Your task to perform on an android device: open app "Pluto TV - Live TV and Movies" Image 0: 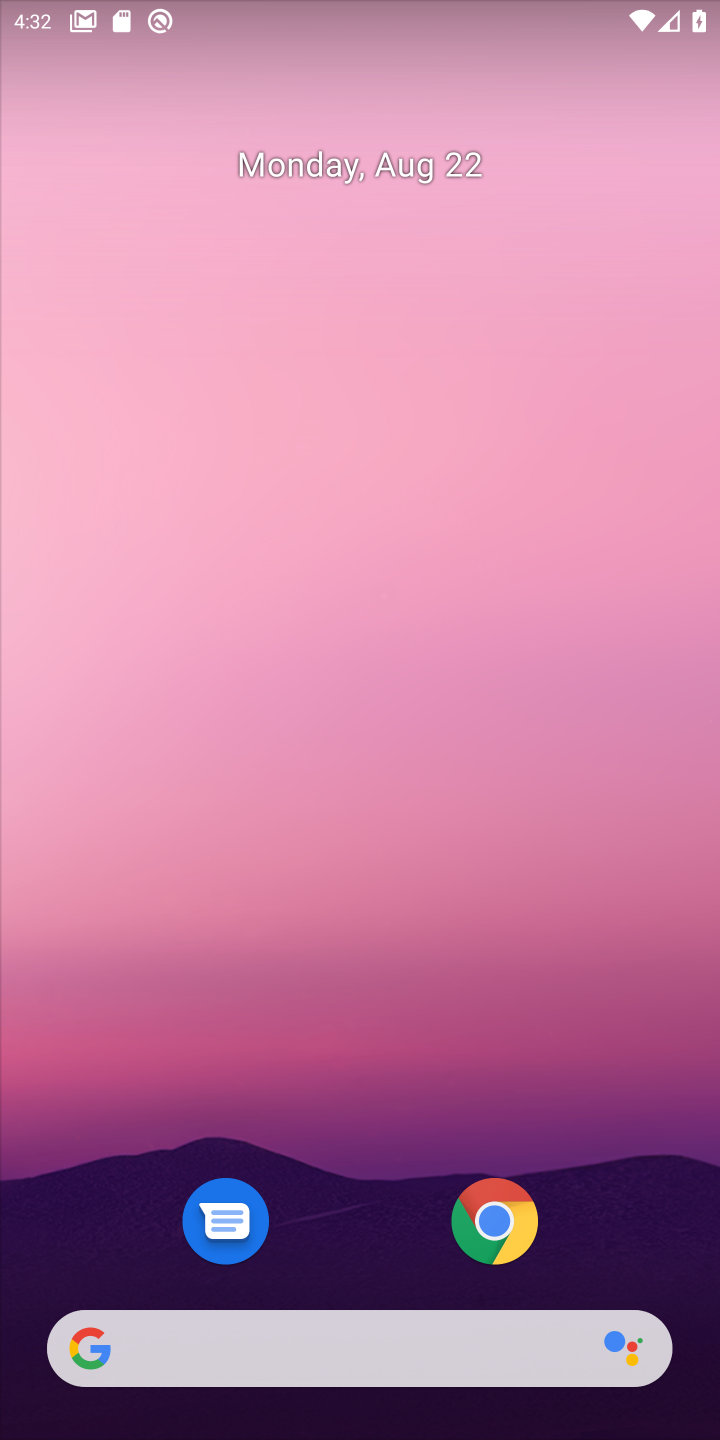
Step 0: drag from (705, 443) to (718, 48)
Your task to perform on an android device: open app "Pluto TV - Live TV and Movies" Image 1: 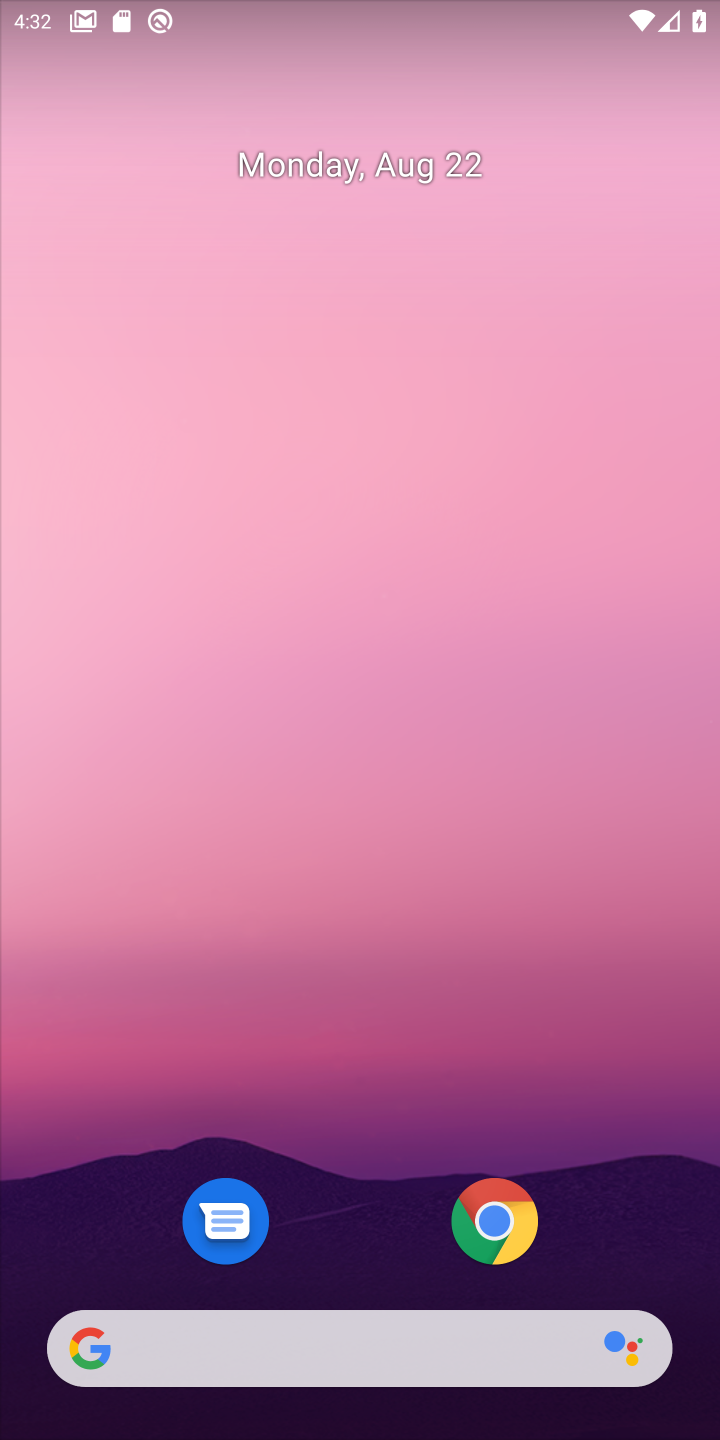
Step 1: drag from (280, 1333) to (96, 71)
Your task to perform on an android device: open app "Pluto TV - Live TV and Movies" Image 2: 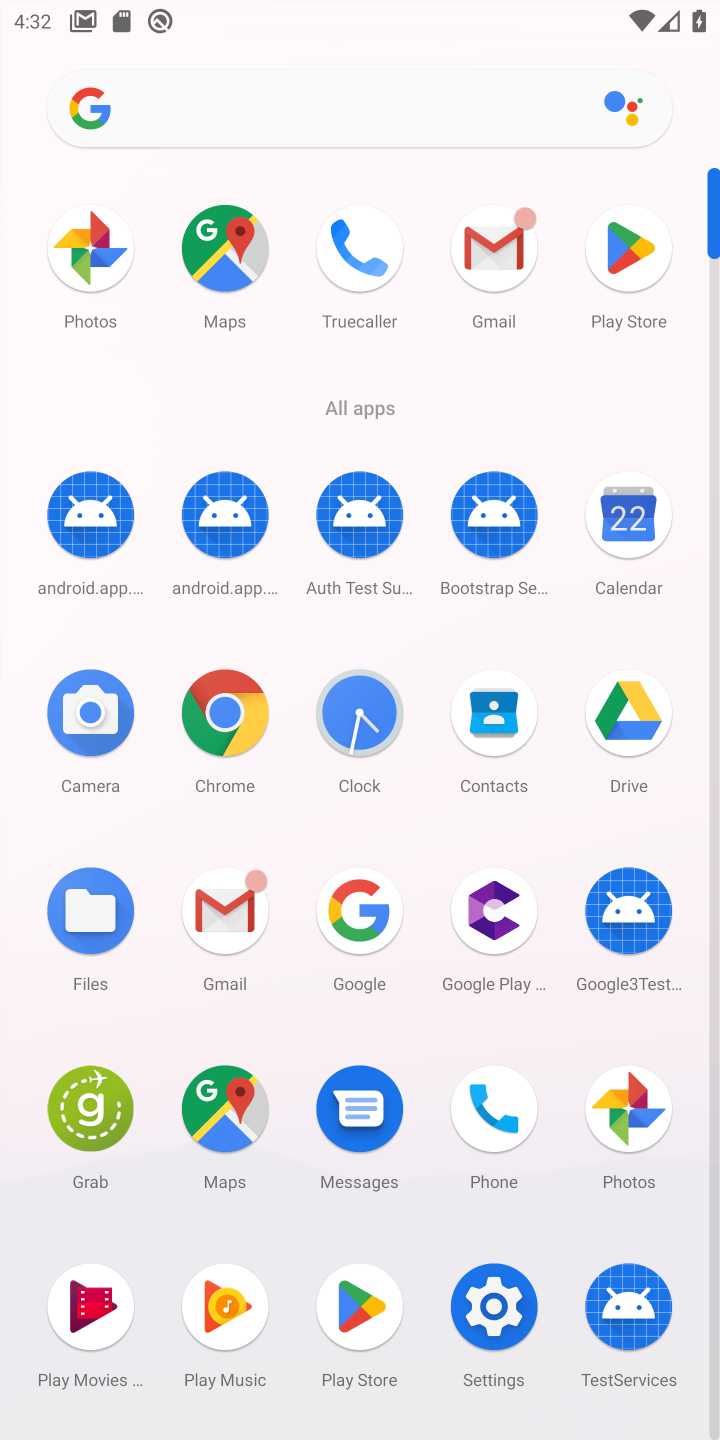
Step 2: click (606, 241)
Your task to perform on an android device: open app "Pluto TV - Live TV and Movies" Image 3: 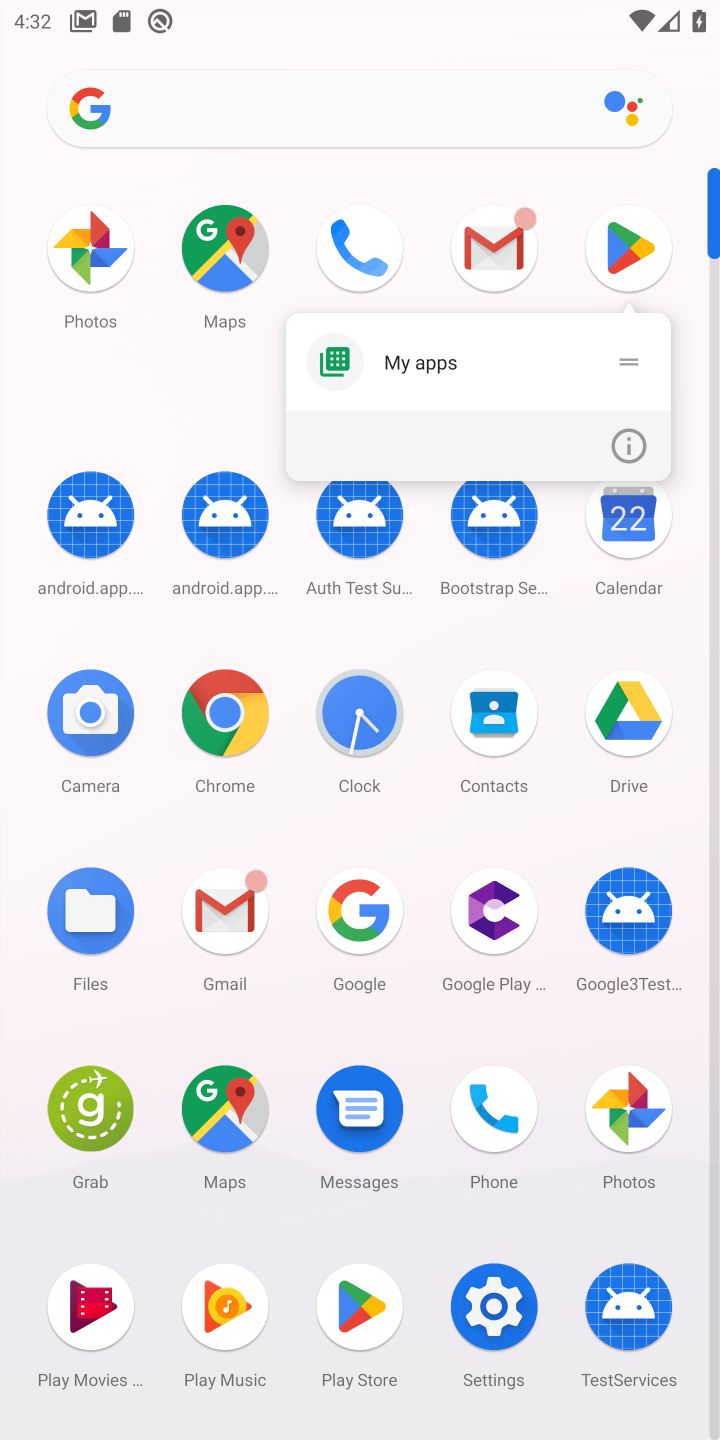
Step 3: click (624, 253)
Your task to perform on an android device: open app "Pluto TV - Live TV and Movies" Image 4: 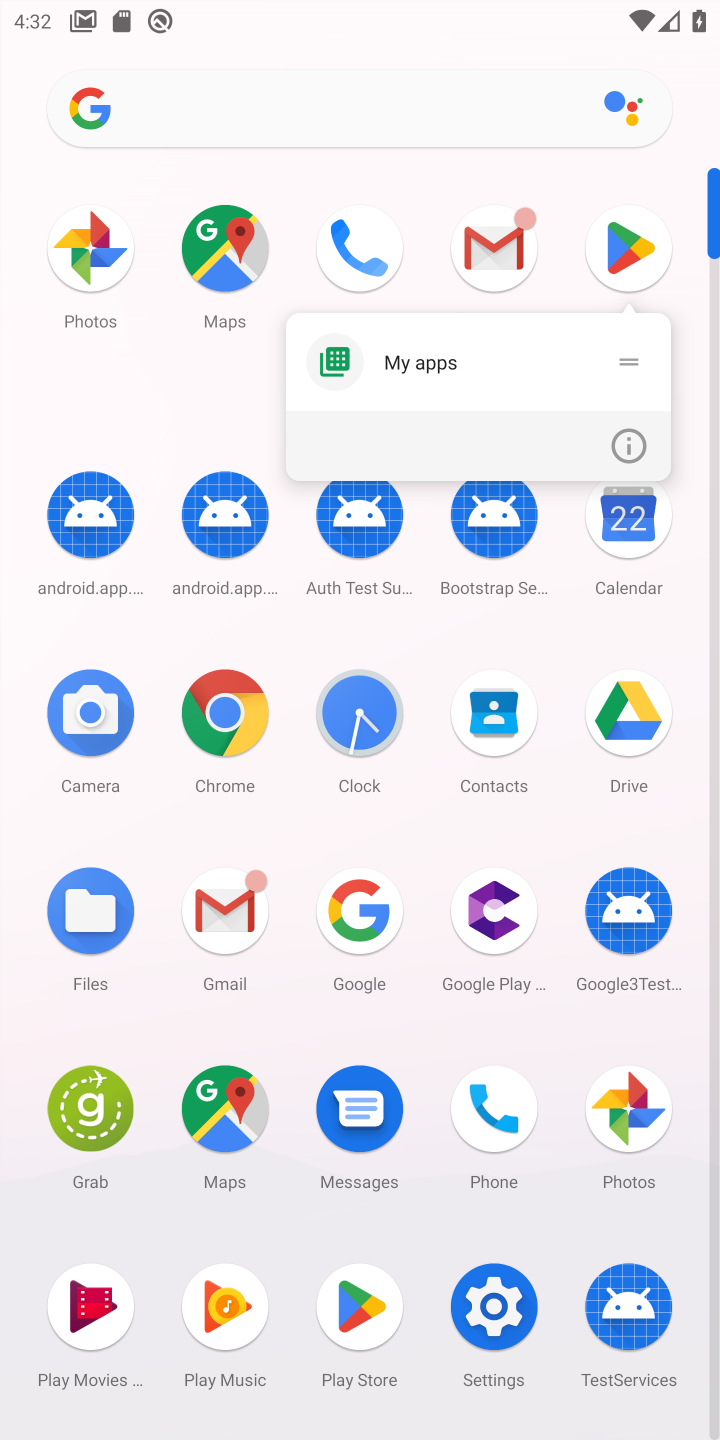
Step 4: click (624, 253)
Your task to perform on an android device: open app "Pluto TV - Live TV and Movies" Image 5: 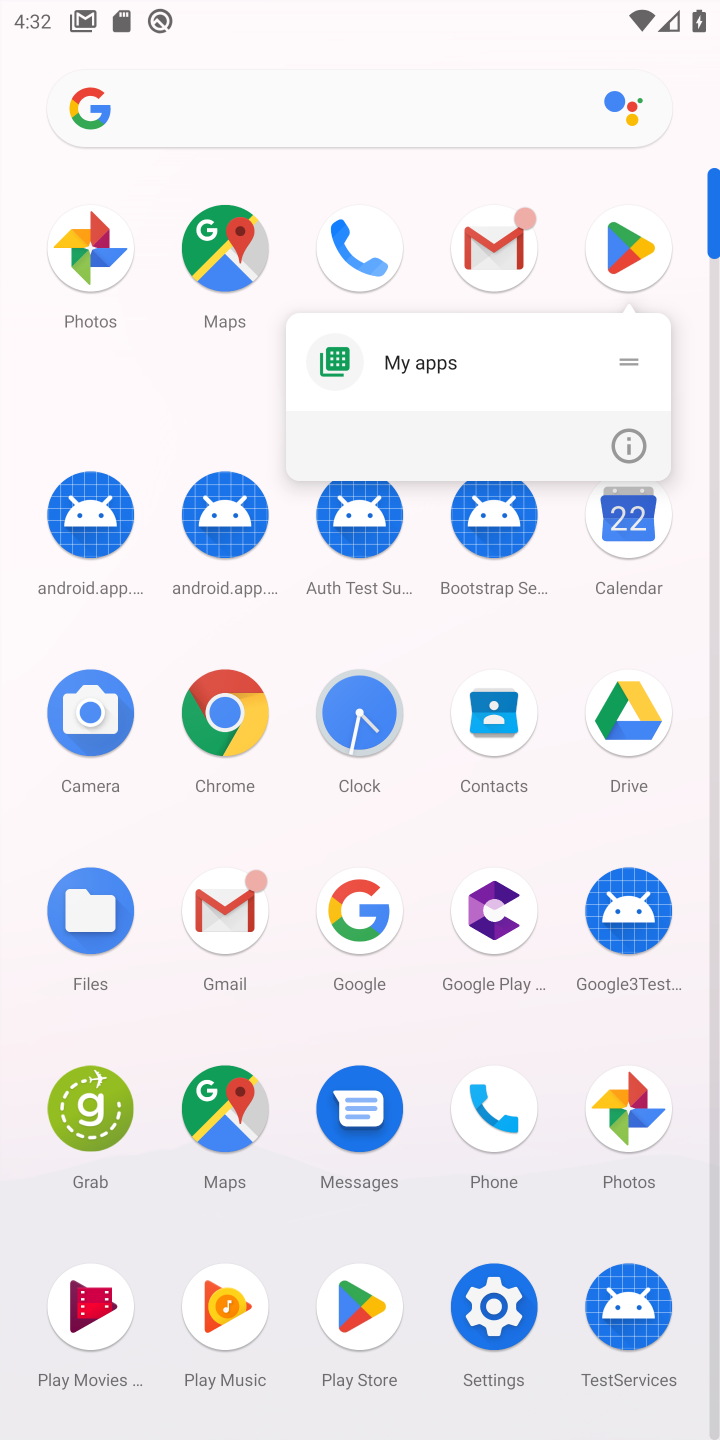
Step 5: click (622, 271)
Your task to perform on an android device: open app "Pluto TV - Live TV and Movies" Image 6: 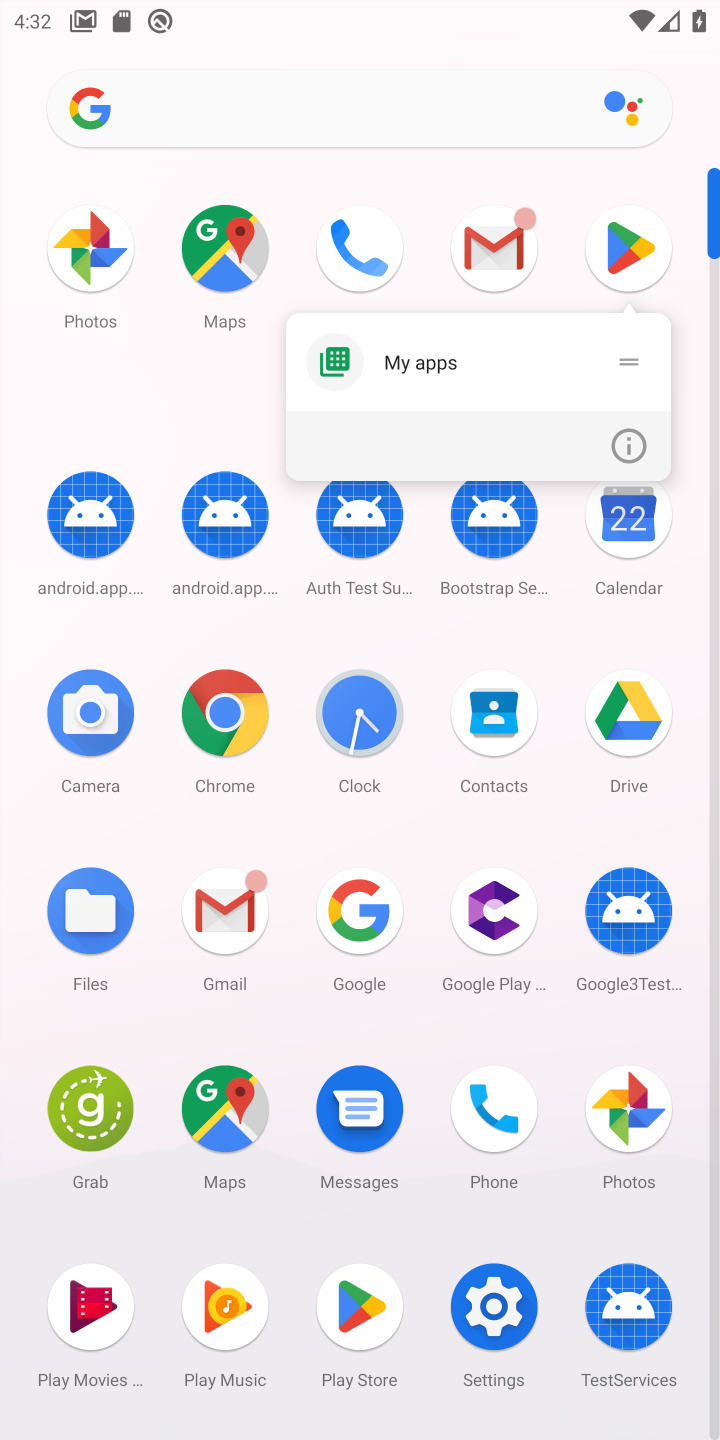
Step 6: click (622, 271)
Your task to perform on an android device: open app "Pluto TV - Live TV and Movies" Image 7: 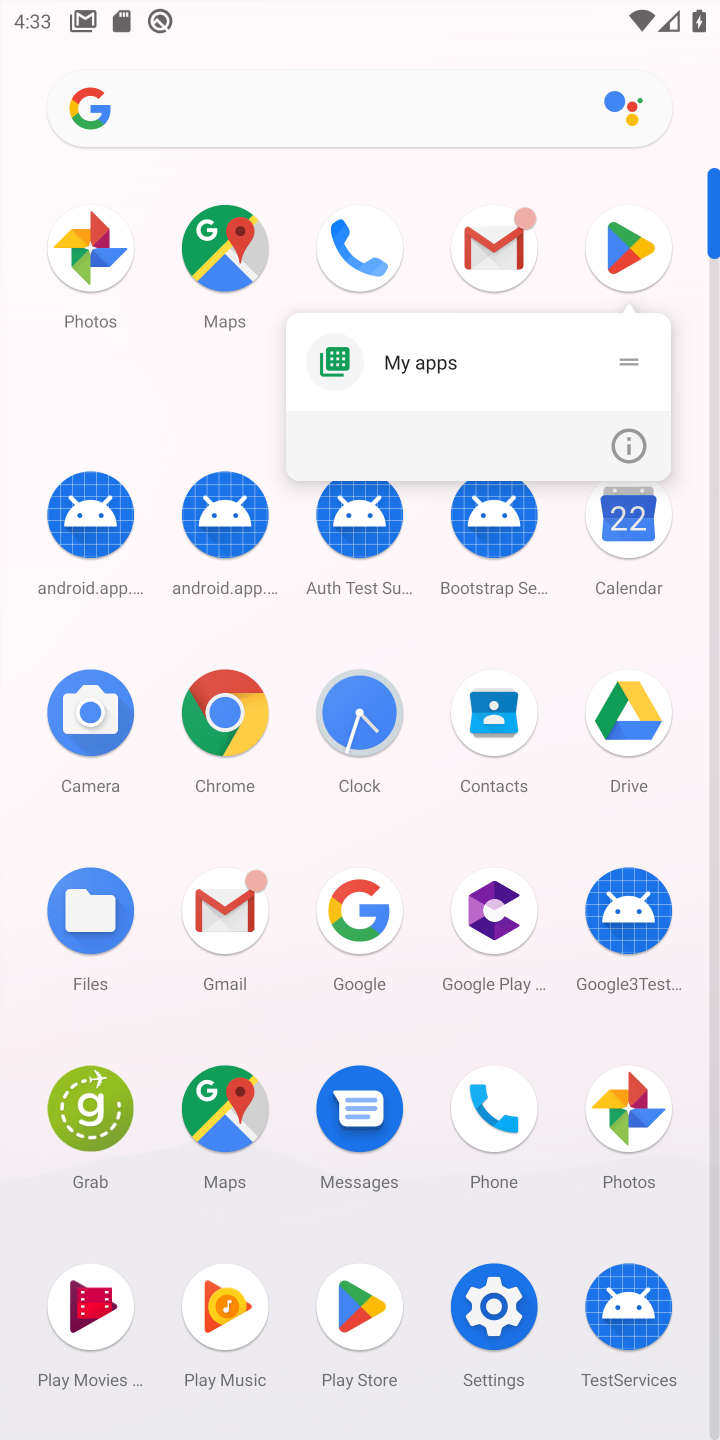
Step 7: click (620, 271)
Your task to perform on an android device: open app "Pluto TV - Live TV and Movies" Image 8: 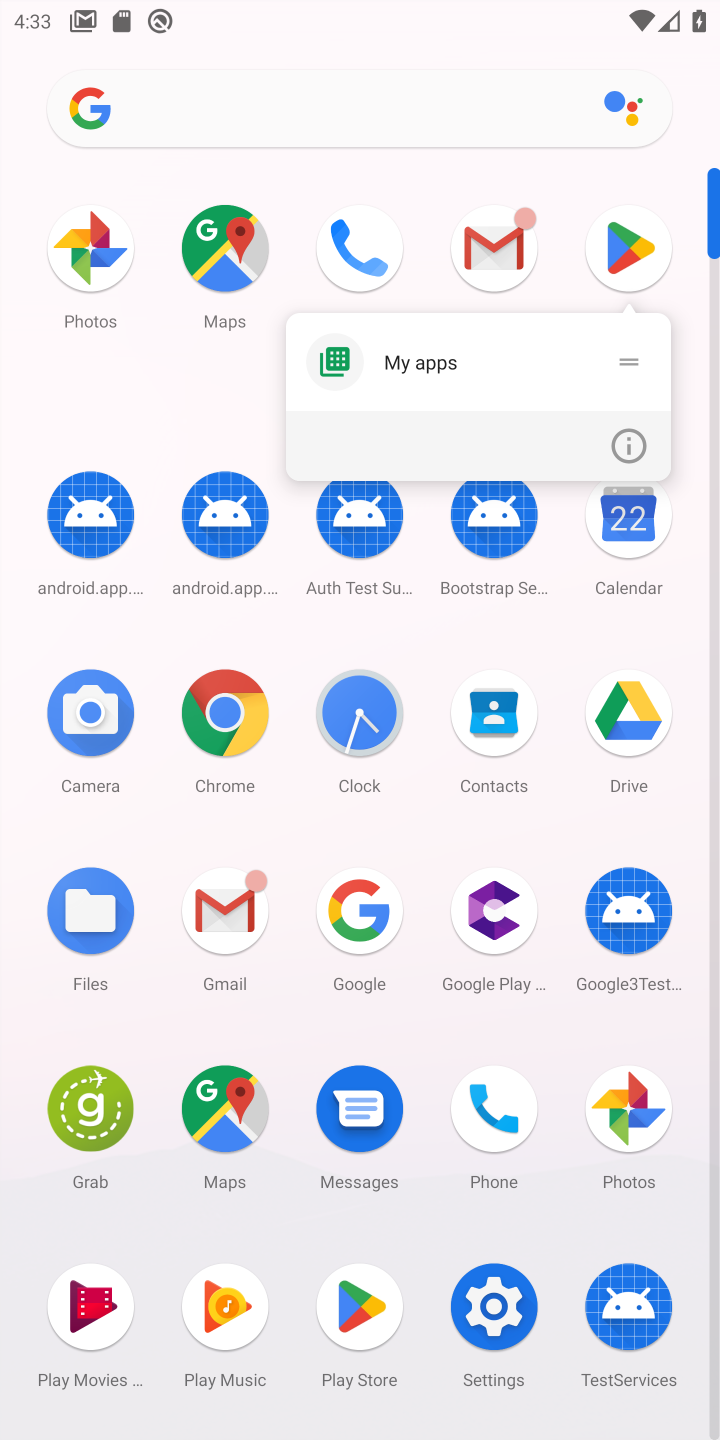
Step 8: click (616, 254)
Your task to perform on an android device: open app "Pluto TV - Live TV and Movies" Image 9: 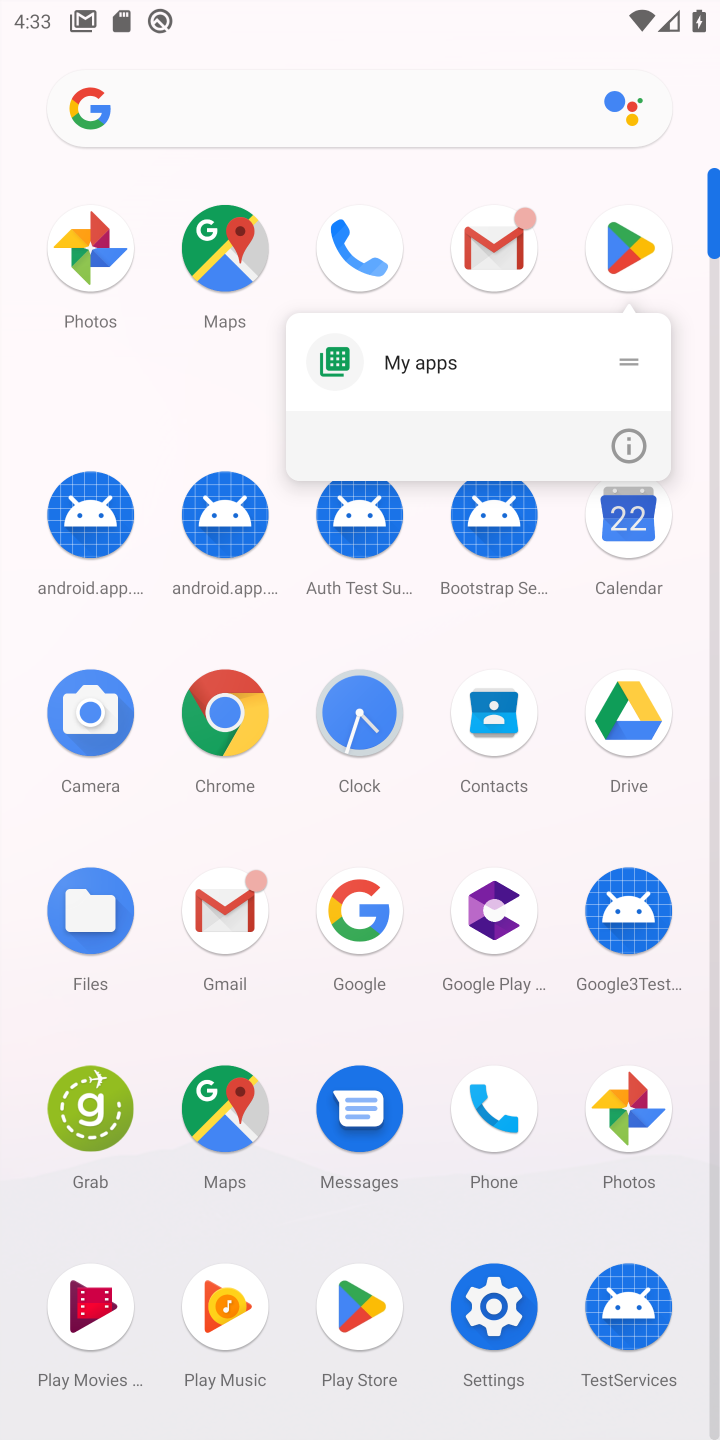
Step 9: click (616, 252)
Your task to perform on an android device: open app "Pluto TV - Live TV and Movies" Image 10: 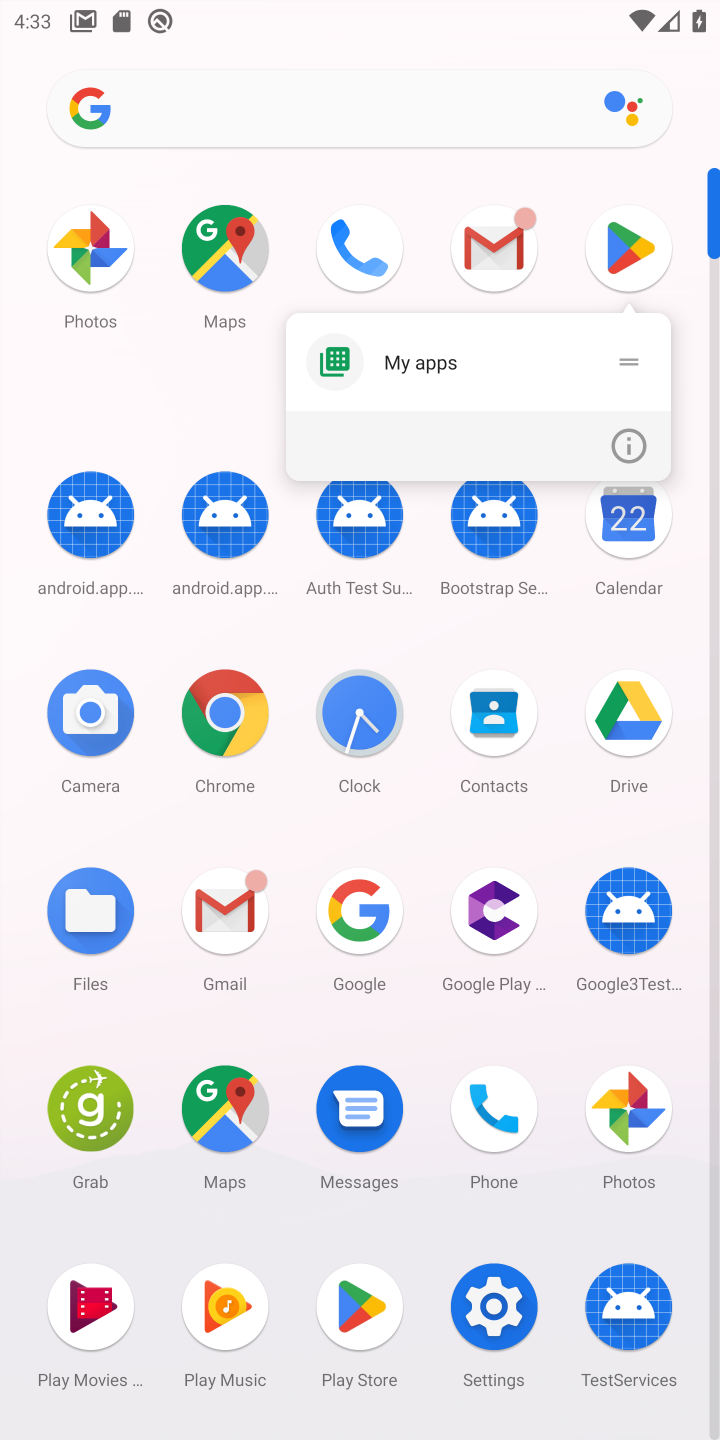
Step 10: click (616, 252)
Your task to perform on an android device: open app "Pluto TV - Live TV and Movies" Image 11: 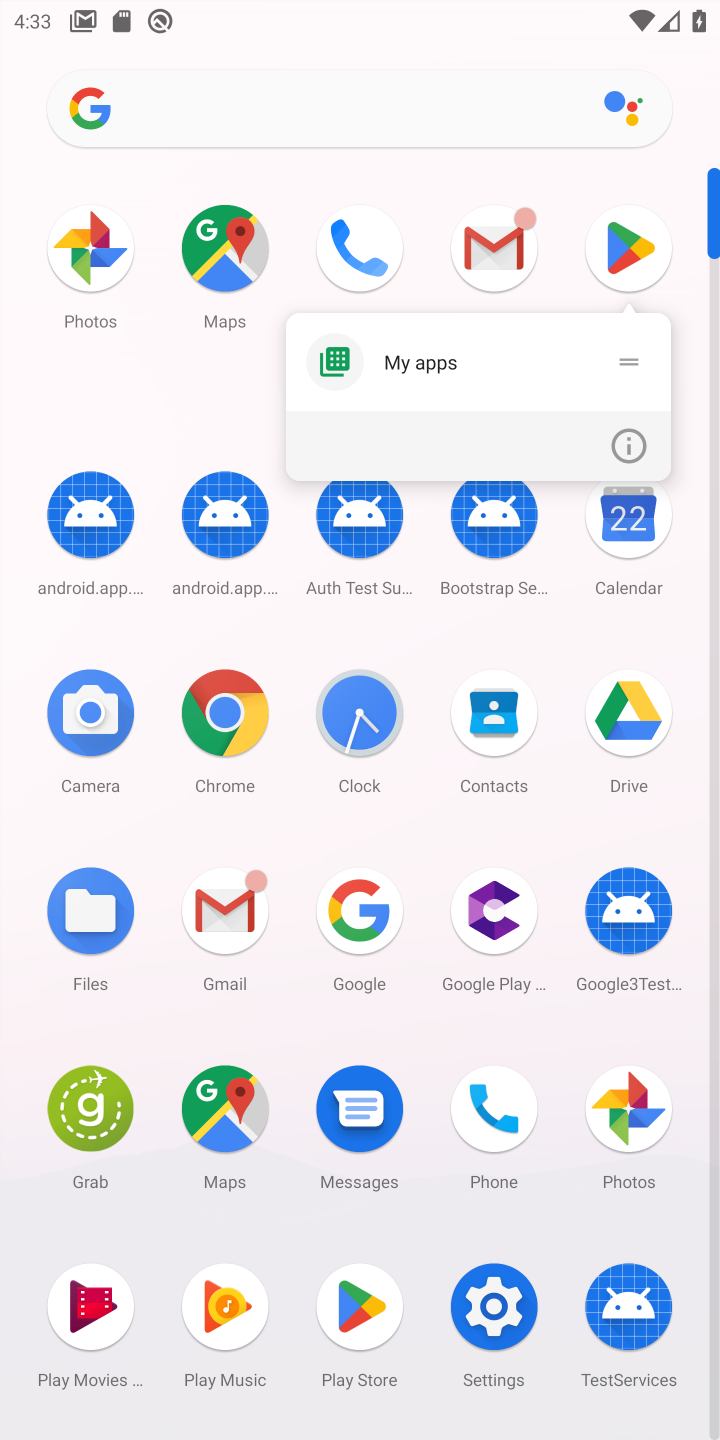
Step 11: click (616, 252)
Your task to perform on an android device: open app "Pluto TV - Live TV and Movies" Image 12: 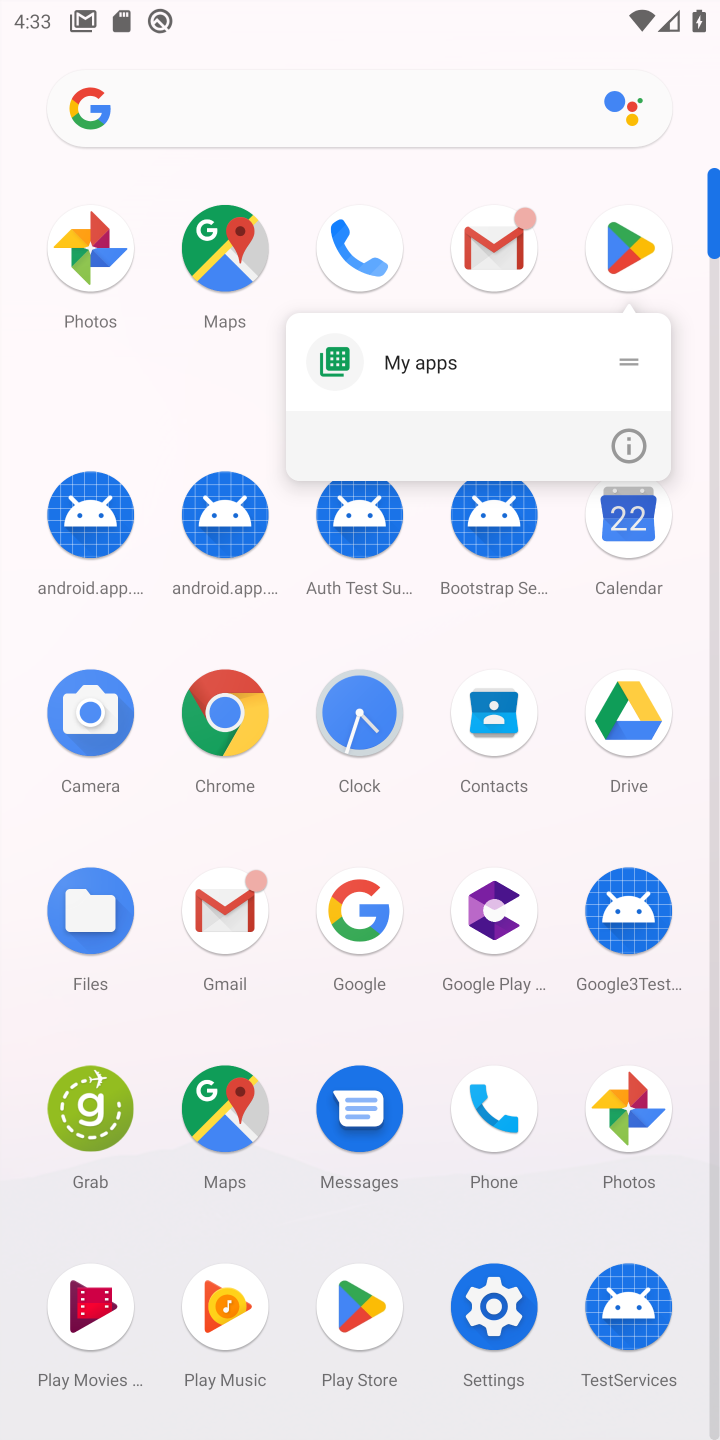
Step 12: click (615, 252)
Your task to perform on an android device: open app "Pluto TV - Live TV and Movies" Image 13: 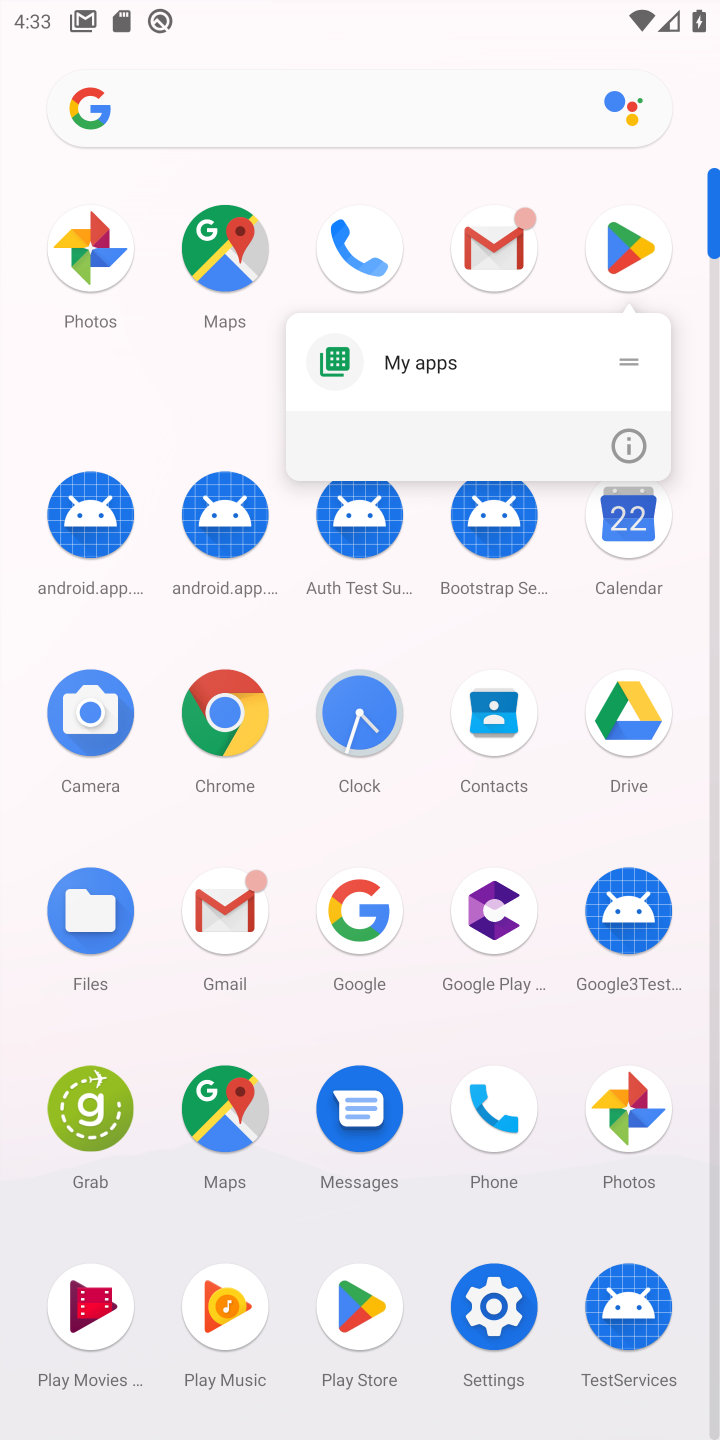
Step 13: click (611, 250)
Your task to perform on an android device: open app "Pluto TV - Live TV and Movies" Image 14: 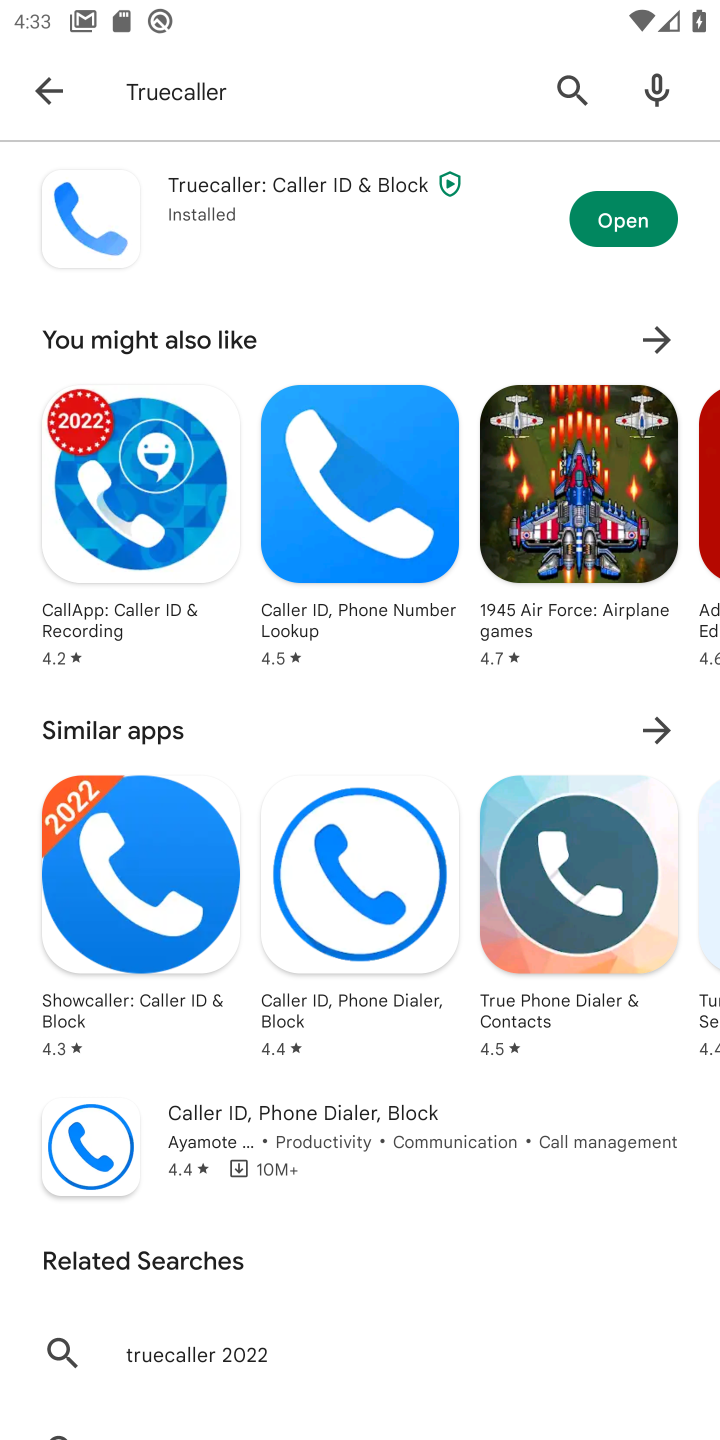
Step 14: press back button
Your task to perform on an android device: open app "Pluto TV - Live TV and Movies" Image 15: 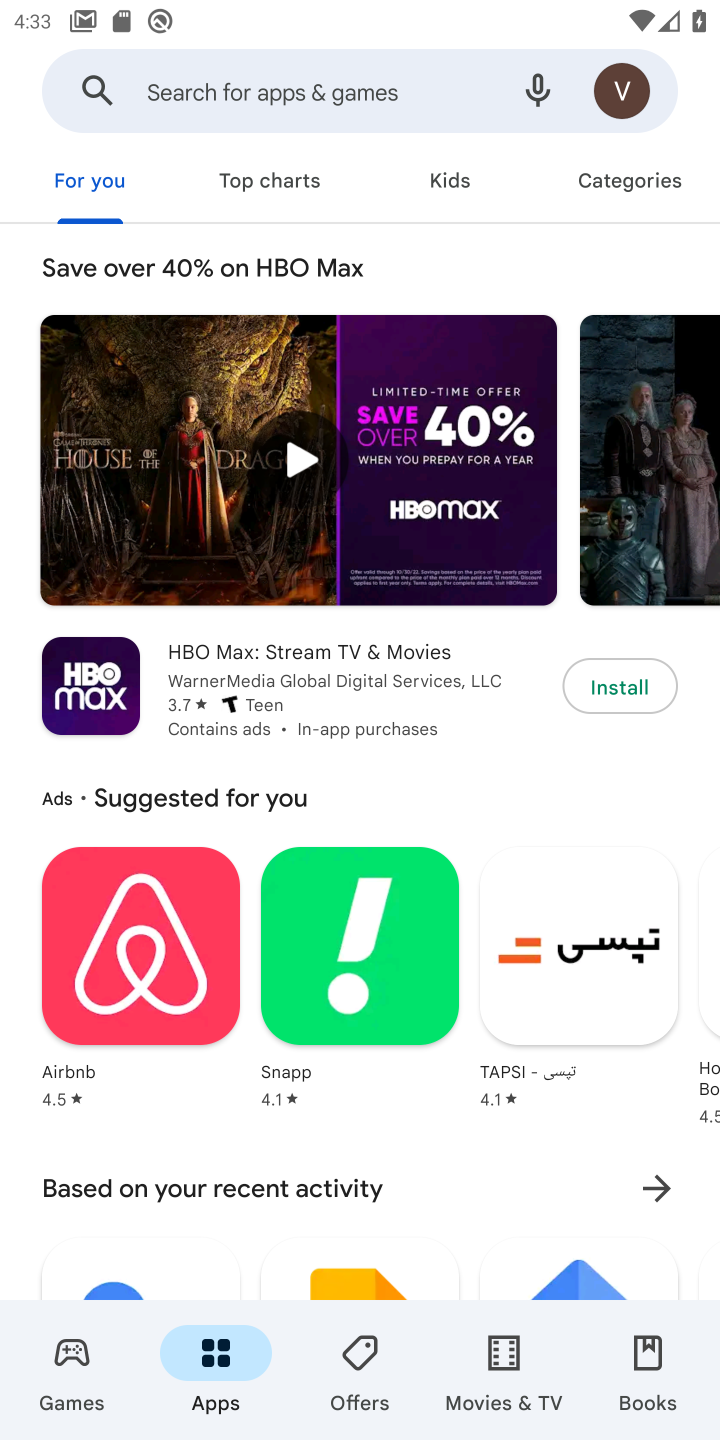
Step 15: click (214, 77)
Your task to perform on an android device: open app "Pluto TV - Live TV and Movies" Image 16: 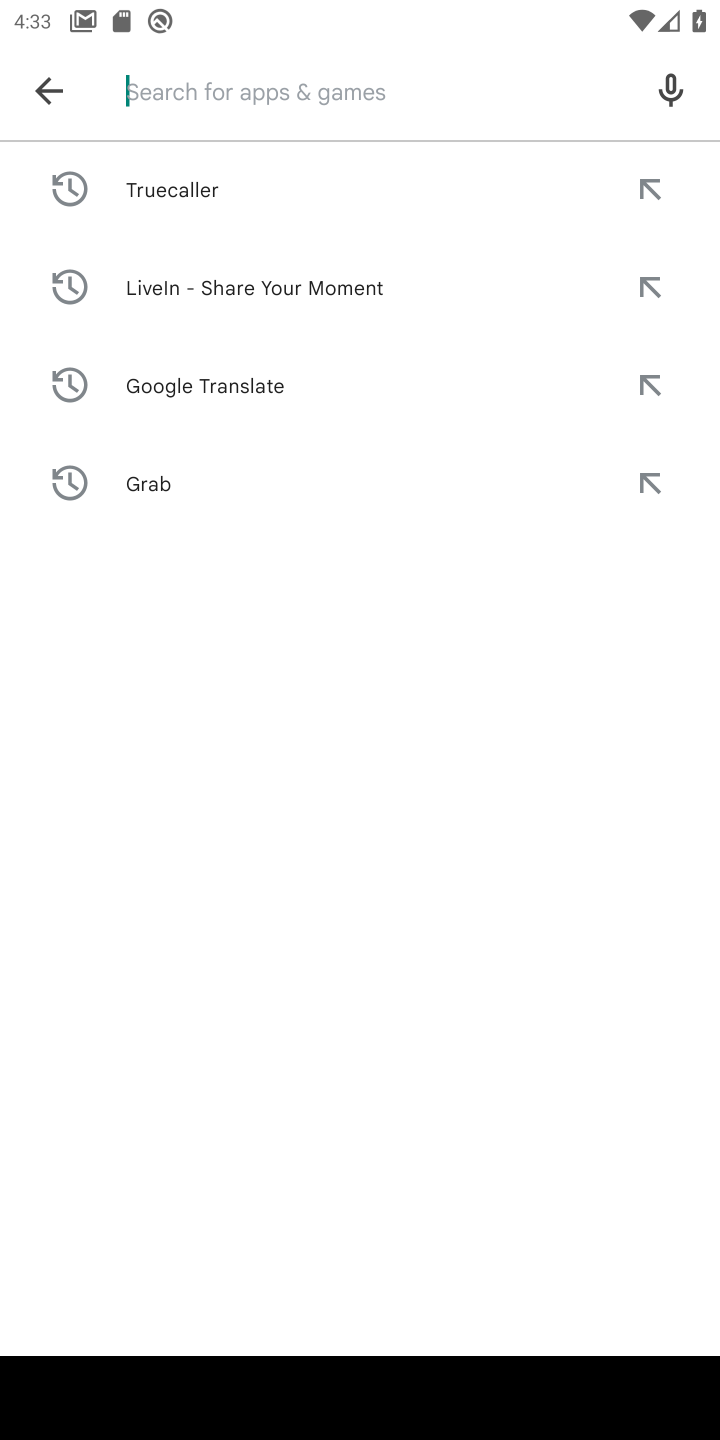
Step 16: type "Pluto TV - Live TV and Movies"
Your task to perform on an android device: open app "Pluto TV - Live TV and Movies" Image 17: 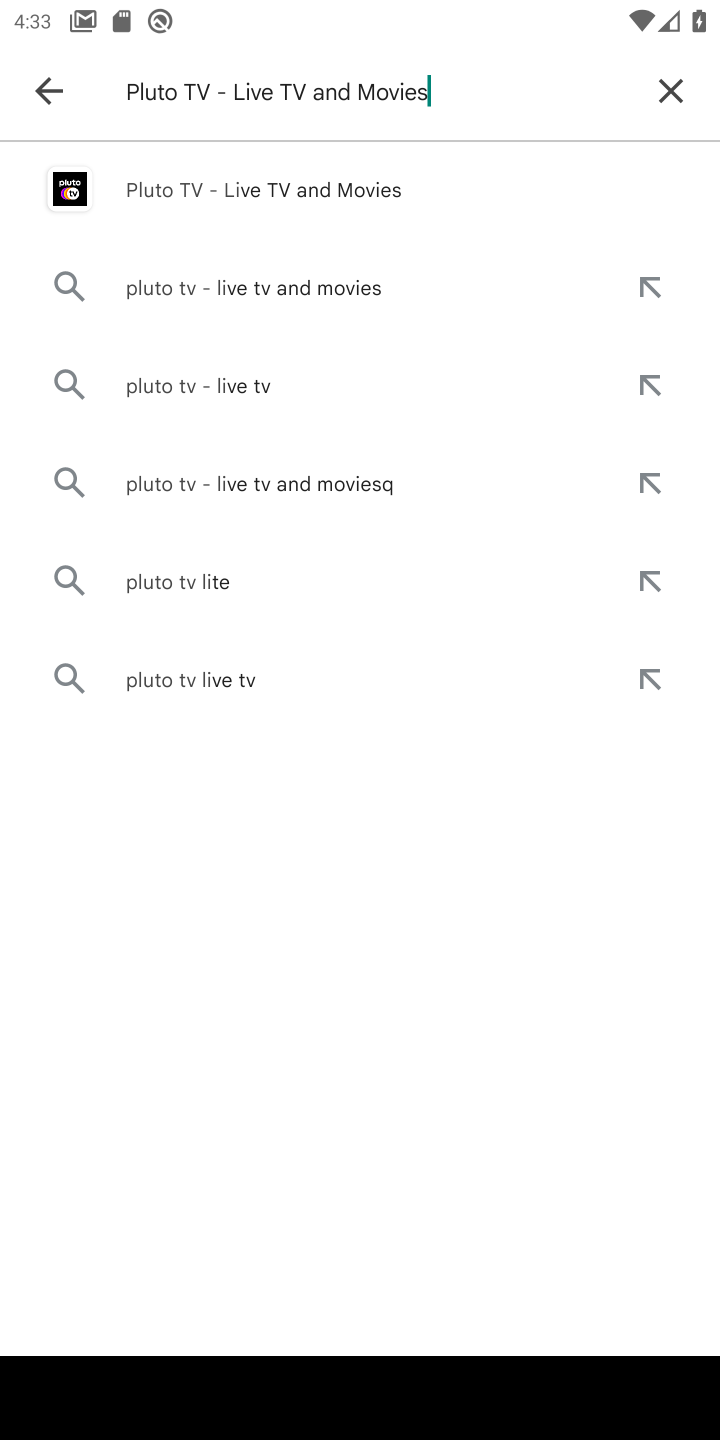
Step 17: press enter
Your task to perform on an android device: open app "Pluto TV - Live TV and Movies" Image 18: 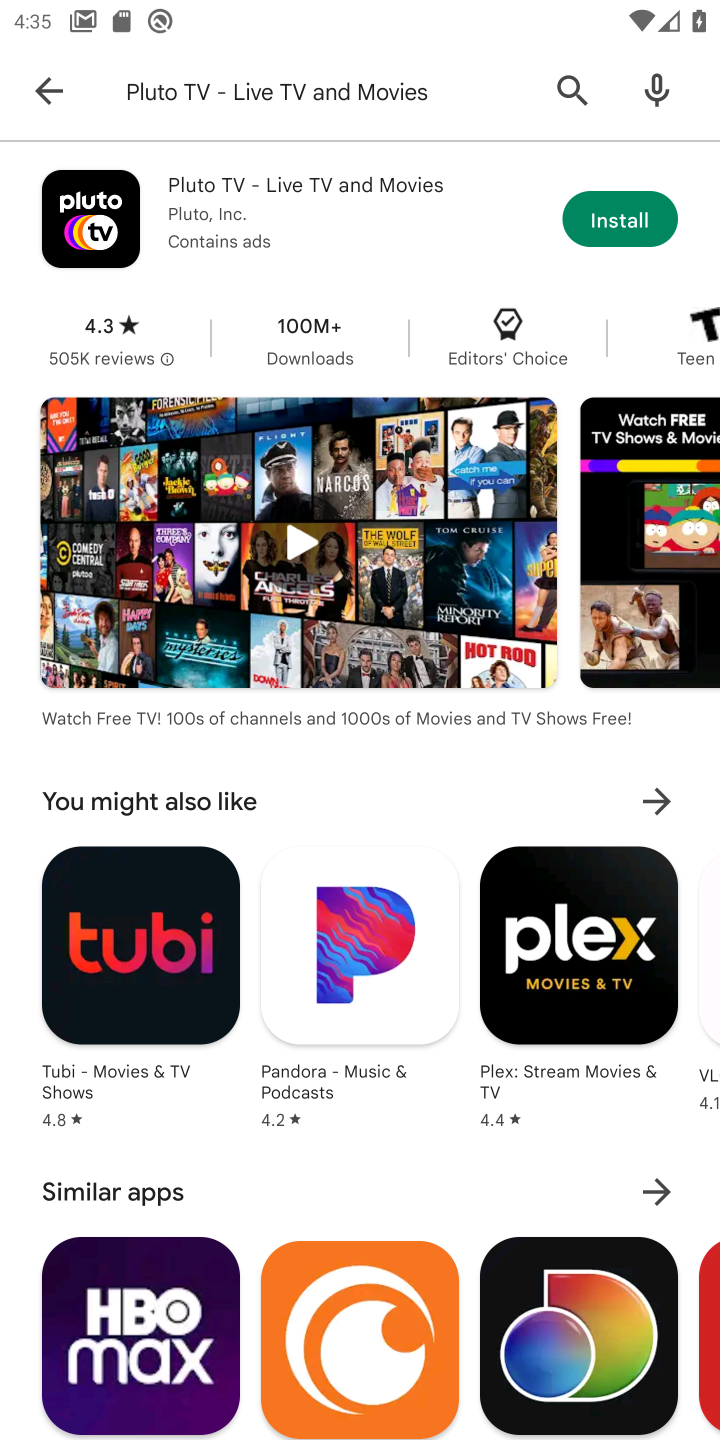
Step 18: task complete